Your task to perform on an android device: Search for Italian restaurants on Maps Image 0: 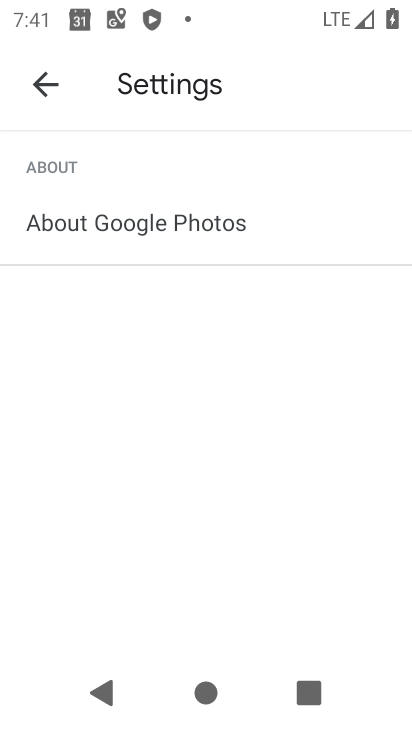
Step 0: press home button
Your task to perform on an android device: Search for Italian restaurants on Maps Image 1: 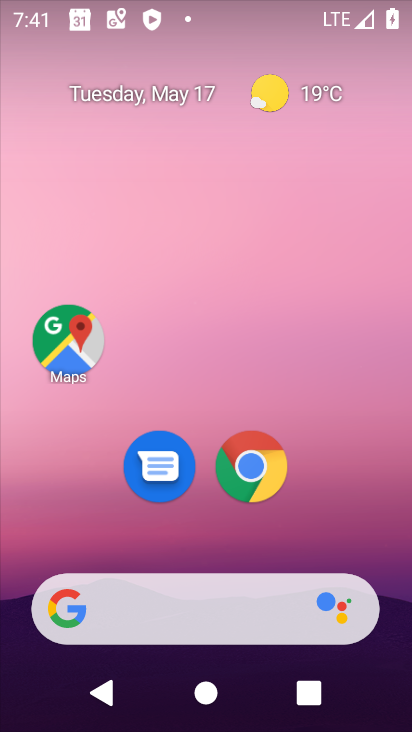
Step 1: click (52, 338)
Your task to perform on an android device: Search for Italian restaurants on Maps Image 2: 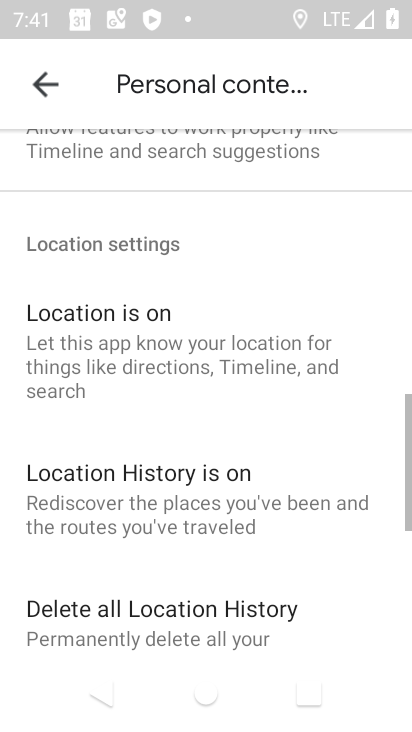
Step 2: click (47, 86)
Your task to perform on an android device: Search for Italian restaurants on Maps Image 3: 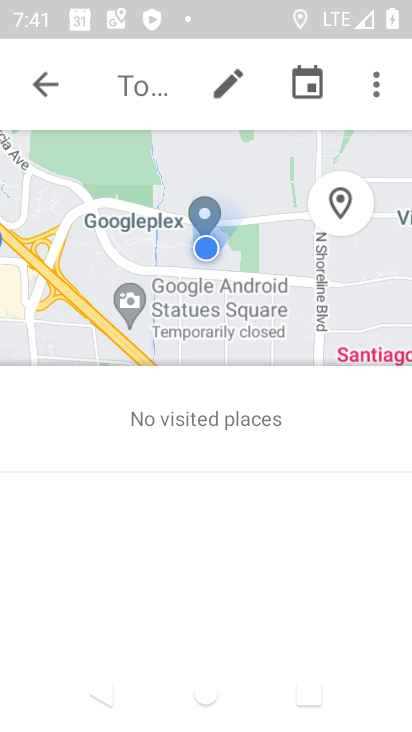
Step 3: click (47, 86)
Your task to perform on an android device: Search for Italian restaurants on Maps Image 4: 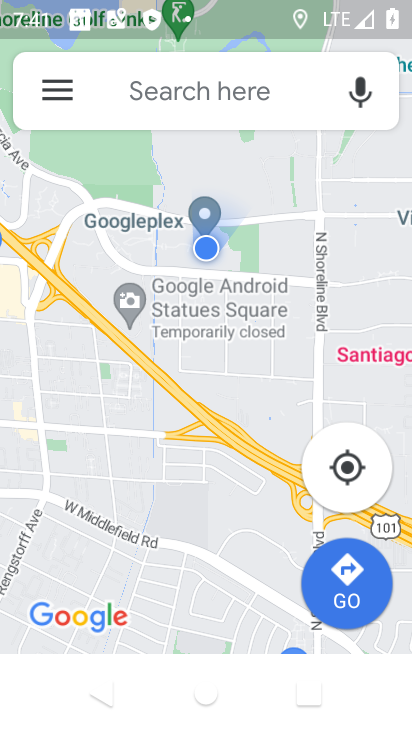
Step 4: click (177, 88)
Your task to perform on an android device: Search for Italian restaurants on Maps Image 5: 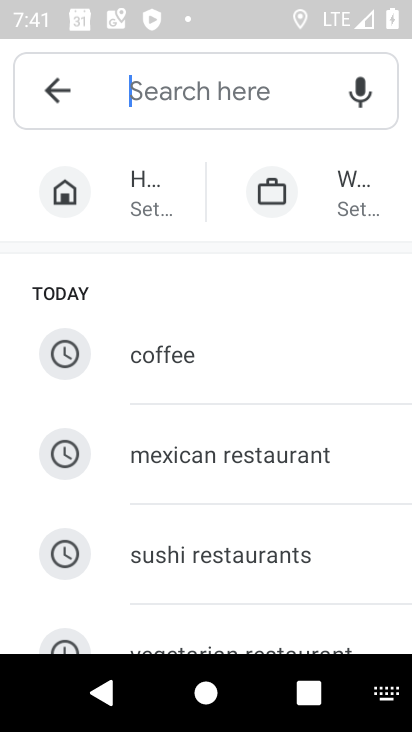
Step 5: drag from (204, 488) to (363, 125)
Your task to perform on an android device: Search for Italian restaurants on Maps Image 6: 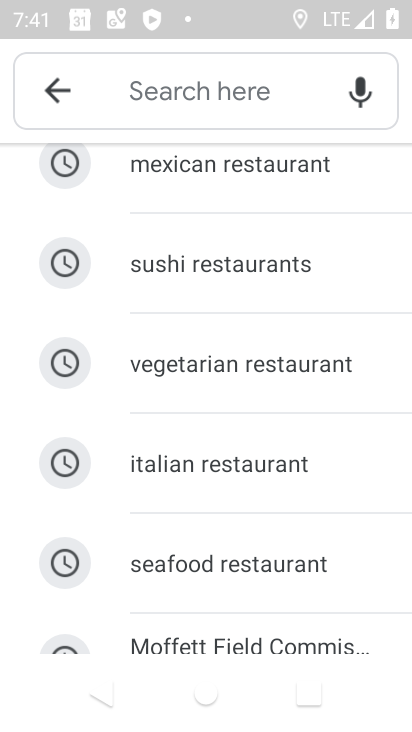
Step 6: click (227, 466)
Your task to perform on an android device: Search for Italian restaurants on Maps Image 7: 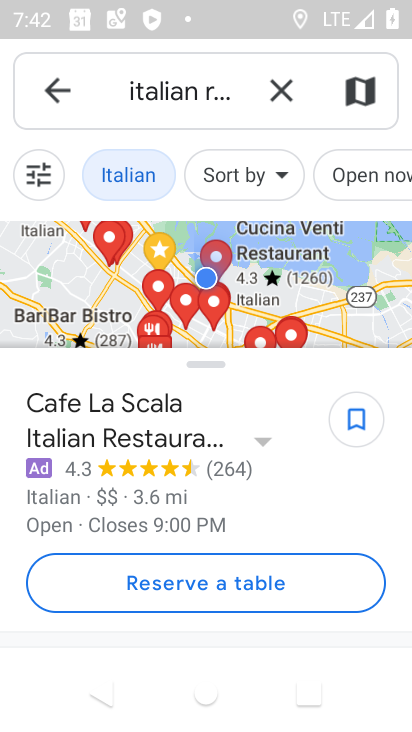
Step 7: task complete